Your task to perform on an android device: empty trash in google photos Image 0: 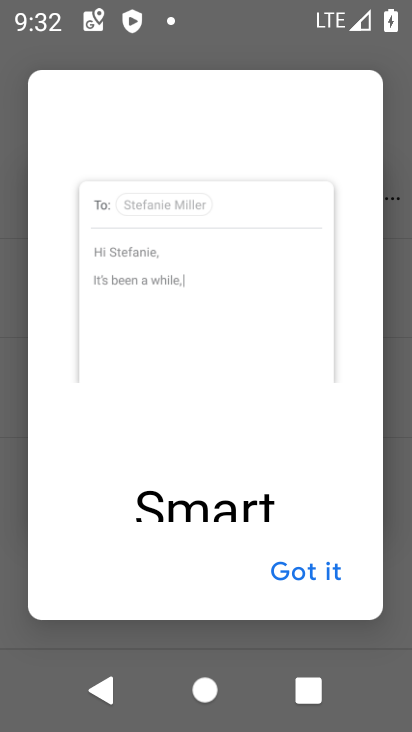
Step 0: press home button
Your task to perform on an android device: empty trash in google photos Image 1: 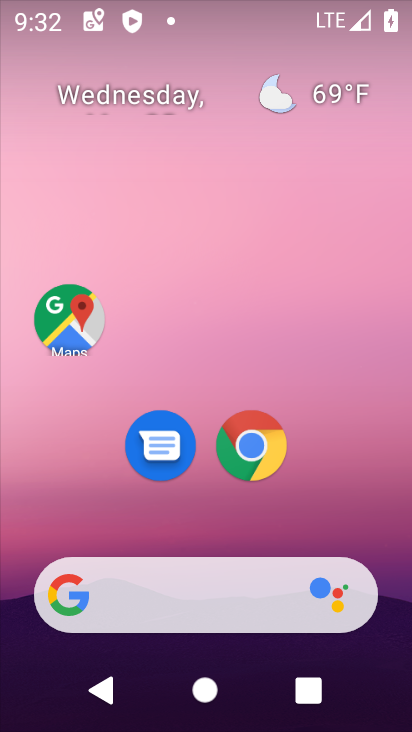
Step 1: drag from (291, 505) to (277, 99)
Your task to perform on an android device: empty trash in google photos Image 2: 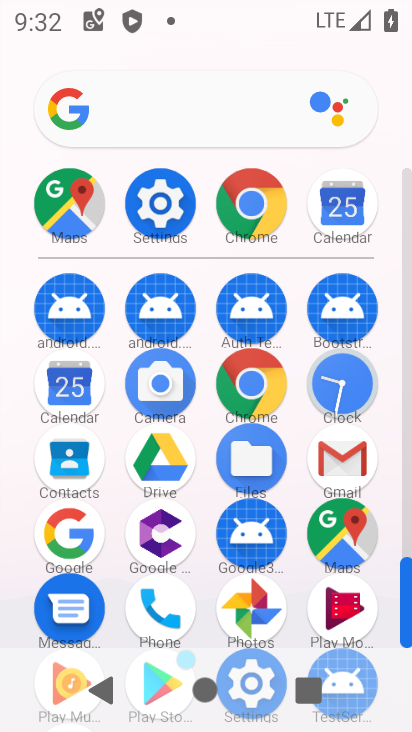
Step 2: click (247, 604)
Your task to perform on an android device: empty trash in google photos Image 3: 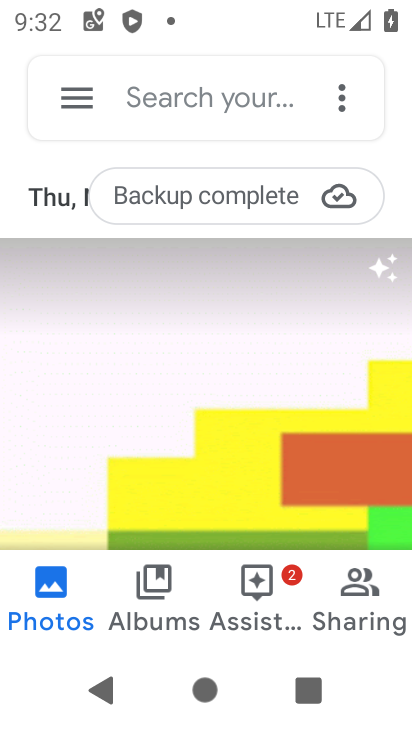
Step 3: click (78, 100)
Your task to perform on an android device: empty trash in google photos Image 4: 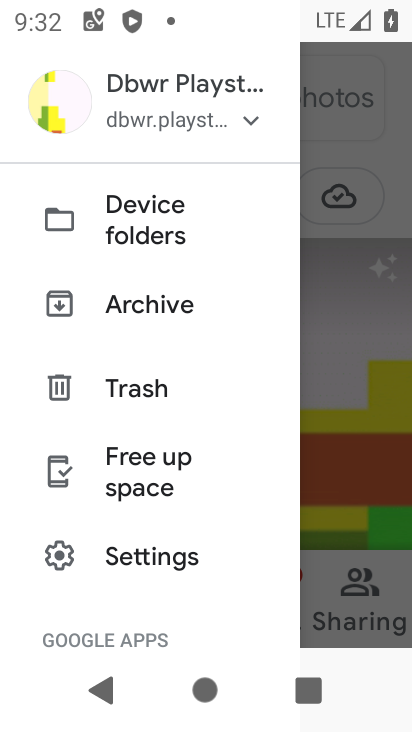
Step 4: click (154, 373)
Your task to perform on an android device: empty trash in google photos Image 5: 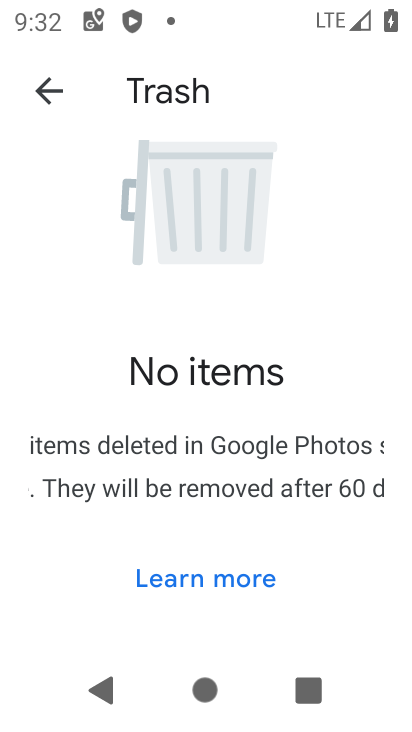
Step 5: task complete